Your task to perform on an android device: Search for seafood restaurants on Google Maps Image 0: 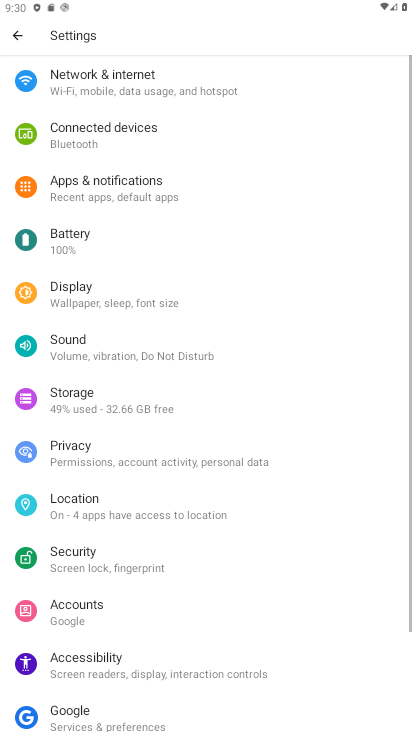
Step 0: press home button
Your task to perform on an android device: Search for seafood restaurants on Google Maps Image 1: 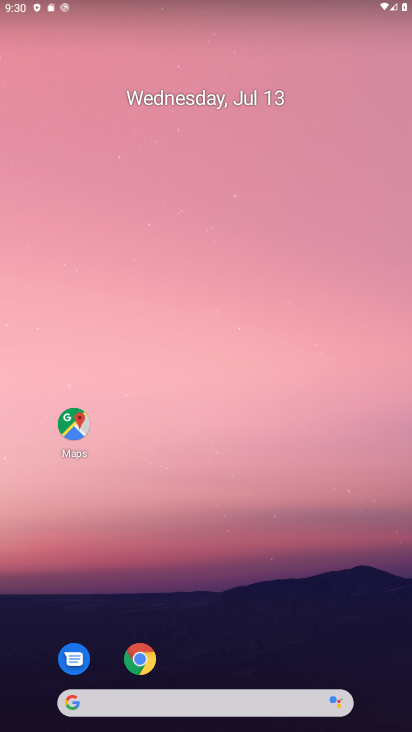
Step 1: drag from (187, 700) to (240, 75)
Your task to perform on an android device: Search for seafood restaurants on Google Maps Image 2: 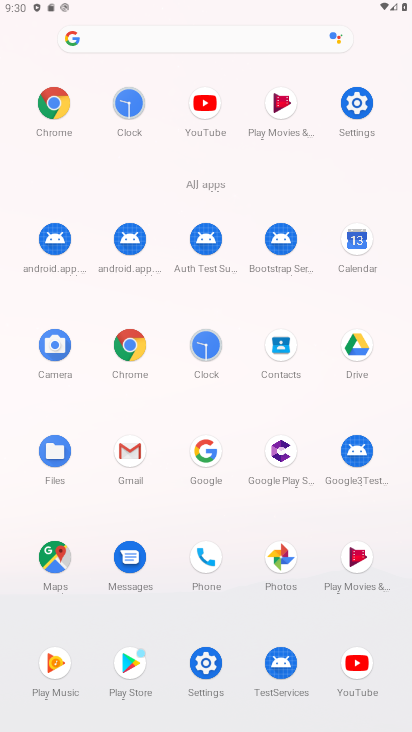
Step 2: click (47, 551)
Your task to perform on an android device: Search for seafood restaurants on Google Maps Image 3: 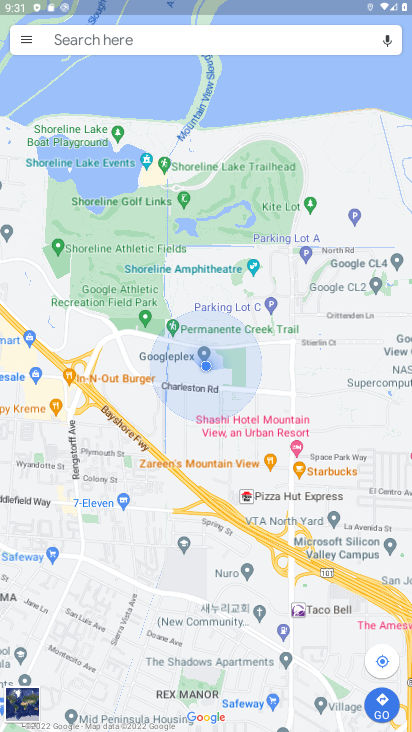
Step 3: click (158, 32)
Your task to perform on an android device: Search for seafood restaurants on Google Maps Image 4: 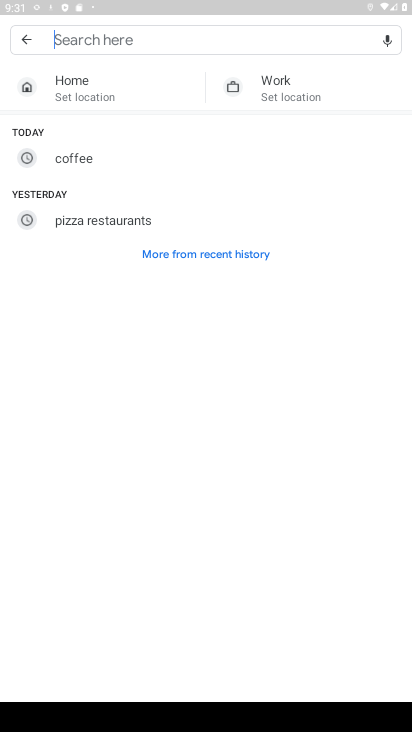
Step 4: type "seafood restaurants"
Your task to perform on an android device: Search for seafood restaurants on Google Maps Image 5: 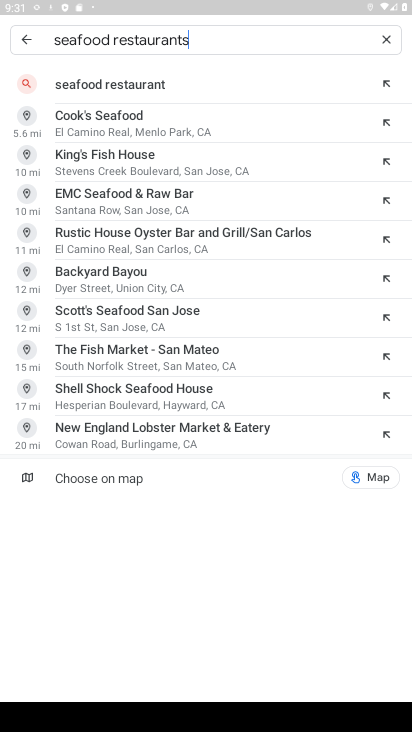
Step 5: click (155, 90)
Your task to perform on an android device: Search for seafood restaurants on Google Maps Image 6: 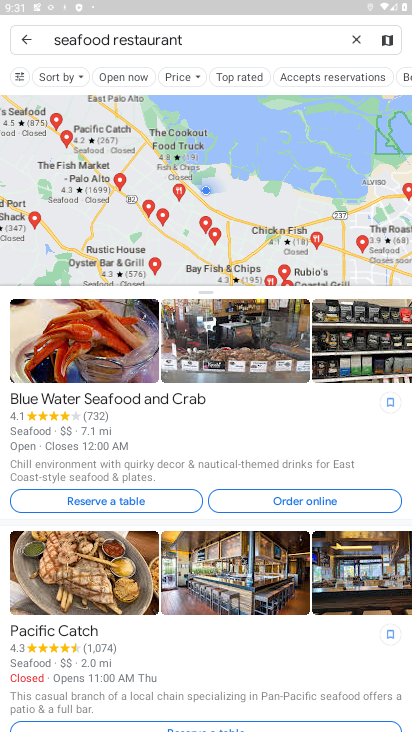
Step 6: task complete